Your task to perform on an android device: Open wifi settings Image 0: 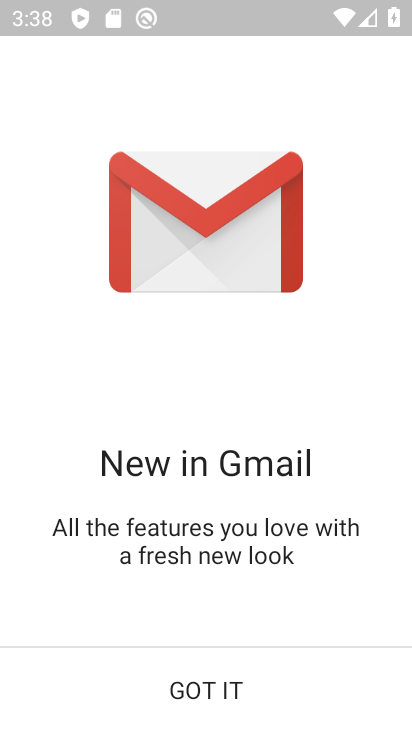
Step 0: click (207, 683)
Your task to perform on an android device: Open wifi settings Image 1: 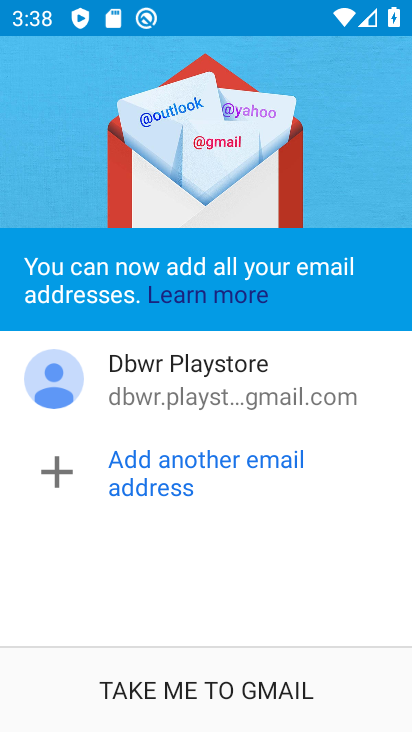
Step 1: click (197, 679)
Your task to perform on an android device: Open wifi settings Image 2: 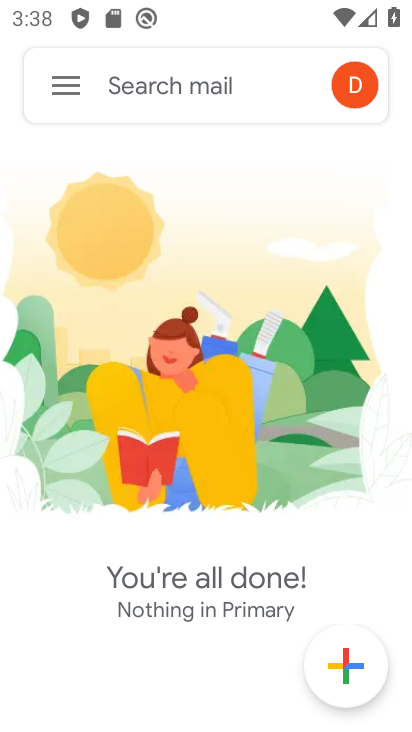
Step 2: press home button
Your task to perform on an android device: Open wifi settings Image 3: 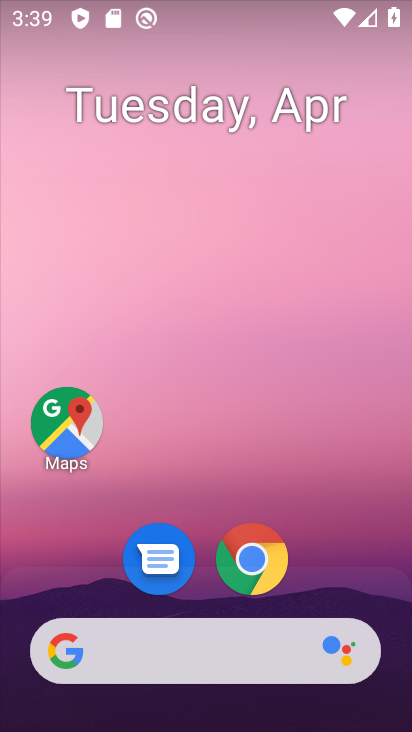
Step 3: drag from (369, 337) to (351, 77)
Your task to perform on an android device: Open wifi settings Image 4: 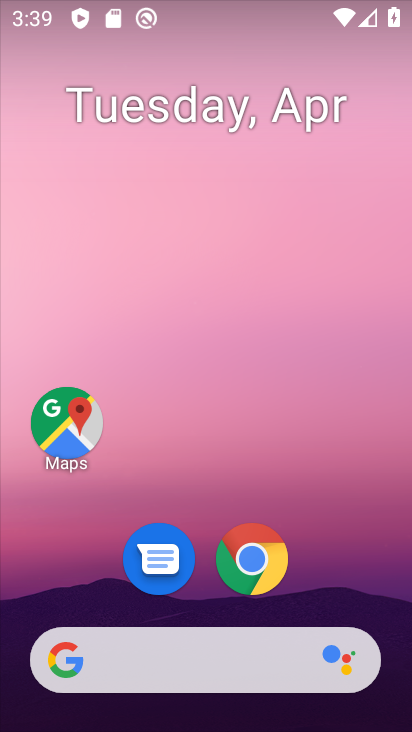
Step 4: drag from (343, 580) to (319, 38)
Your task to perform on an android device: Open wifi settings Image 5: 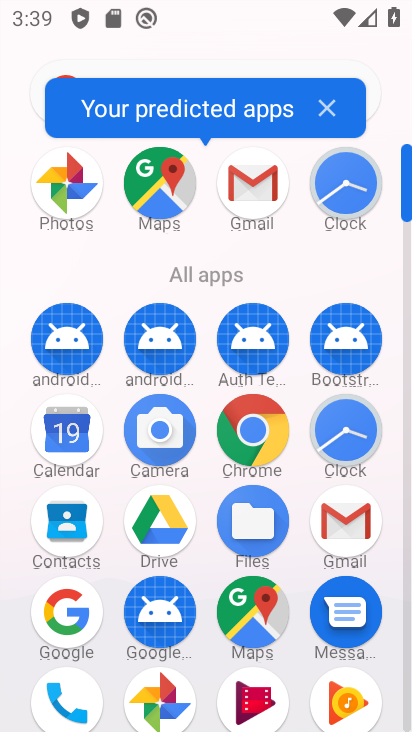
Step 5: drag from (204, 643) to (259, 246)
Your task to perform on an android device: Open wifi settings Image 6: 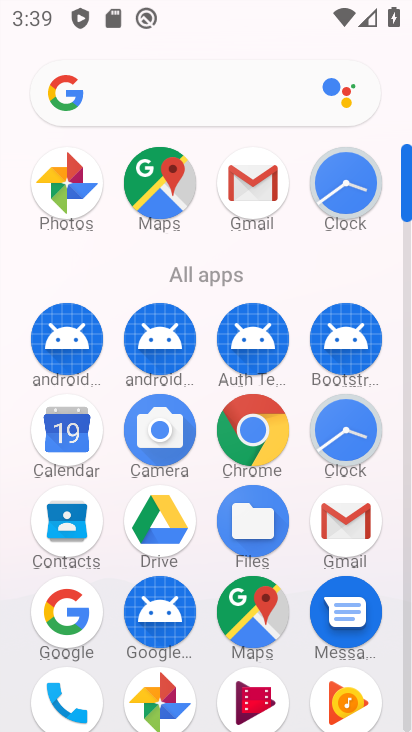
Step 6: drag from (210, 599) to (256, 149)
Your task to perform on an android device: Open wifi settings Image 7: 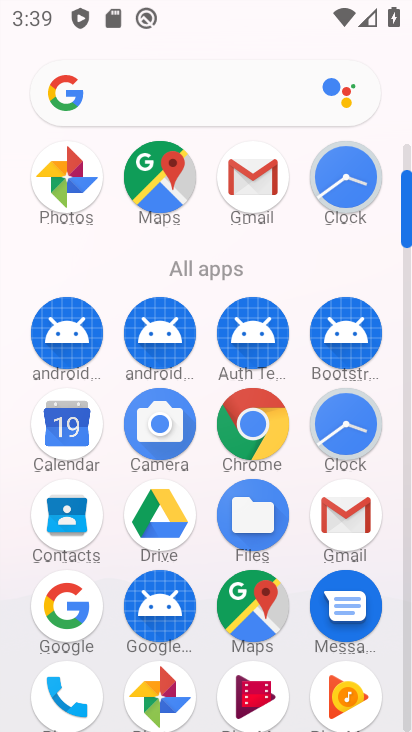
Step 7: drag from (403, 223) to (404, 107)
Your task to perform on an android device: Open wifi settings Image 8: 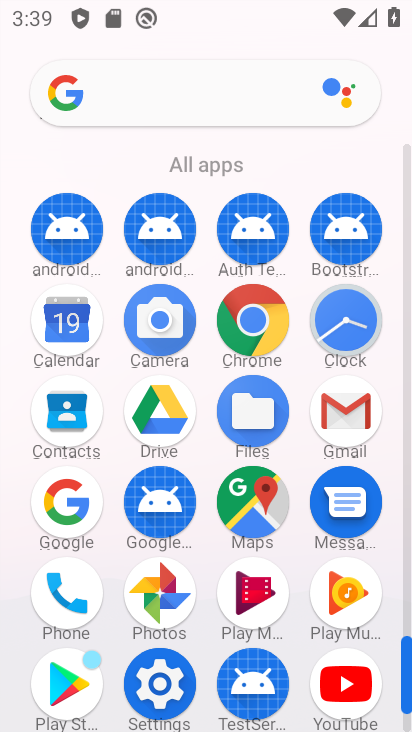
Step 8: click (140, 675)
Your task to perform on an android device: Open wifi settings Image 9: 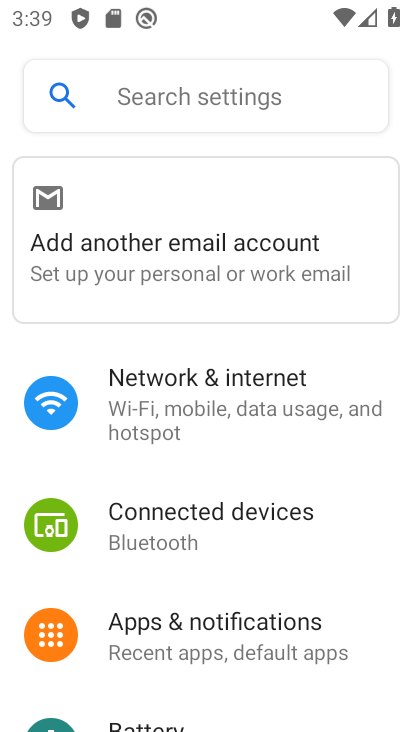
Step 9: click (140, 392)
Your task to perform on an android device: Open wifi settings Image 10: 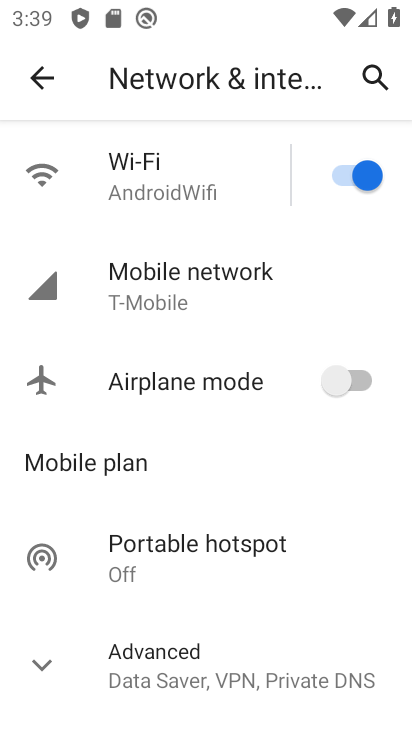
Step 10: click (153, 190)
Your task to perform on an android device: Open wifi settings Image 11: 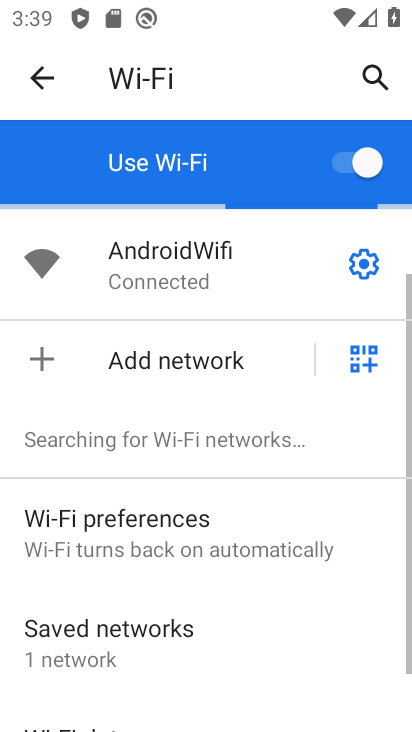
Step 11: click (357, 256)
Your task to perform on an android device: Open wifi settings Image 12: 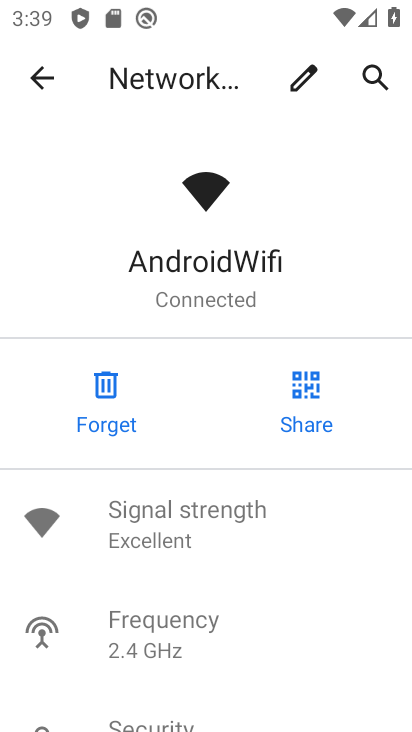
Step 12: task complete